Your task to perform on an android device: Open the calendar app, open the side menu, and click the "Day" option Image 0: 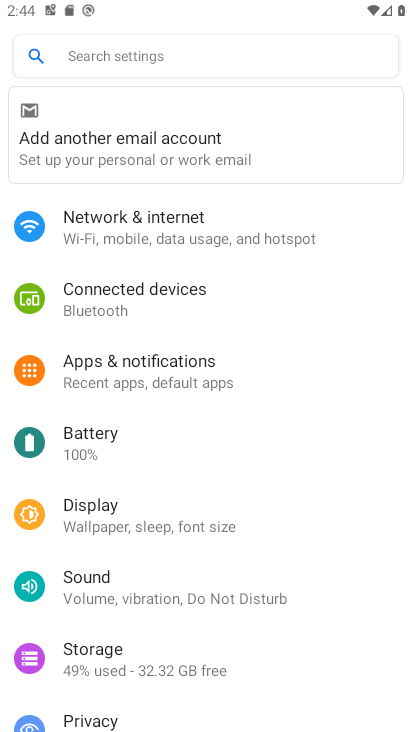
Step 0: press home button
Your task to perform on an android device: Open the calendar app, open the side menu, and click the "Day" option Image 1: 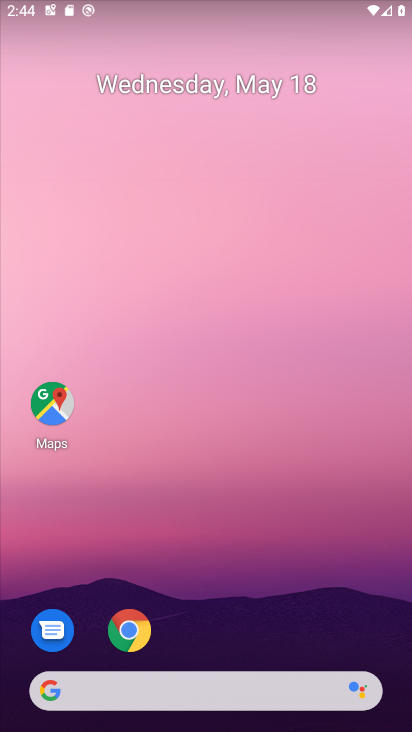
Step 1: drag from (207, 614) to (264, 156)
Your task to perform on an android device: Open the calendar app, open the side menu, and click the "Day" option Image 2: 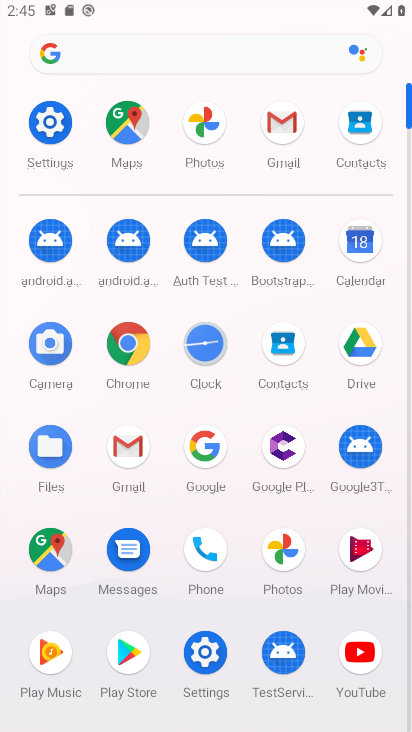
Step 2: click (360, 234)
Your task to perform on an android device: Open the calendar app, open the side menu, and click the "Day" option Image 3: 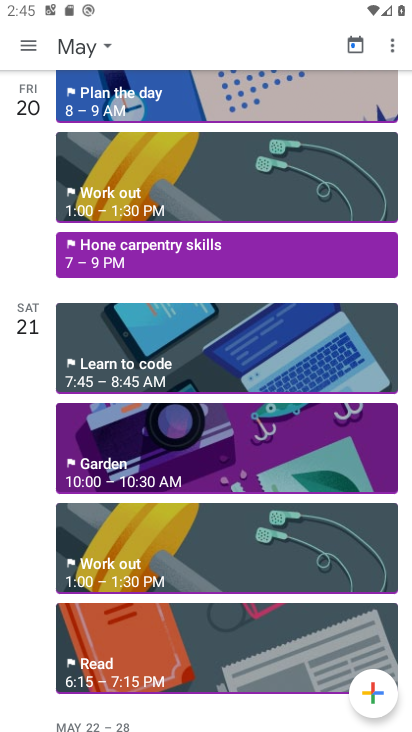
Step 3: click (27, 36)
Your task to perform on an android device: Open the calendar app, open the side menu, and click the "Day" option Image 4: 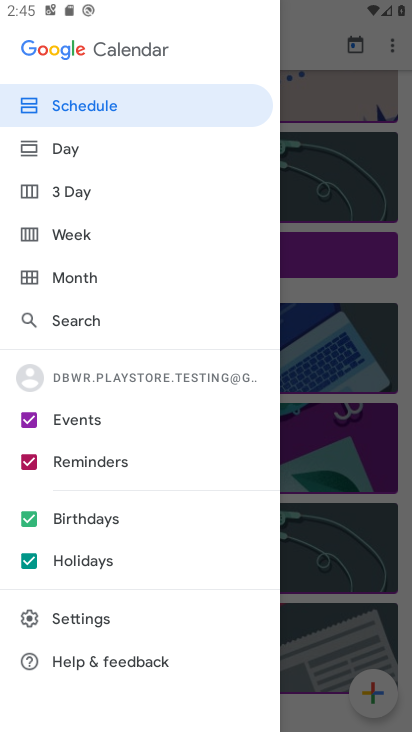
Step 4: click (67, 148)
Your task to perform on an android device: Open the calendar app, open the side menu, and click the "Day" option Image 5: 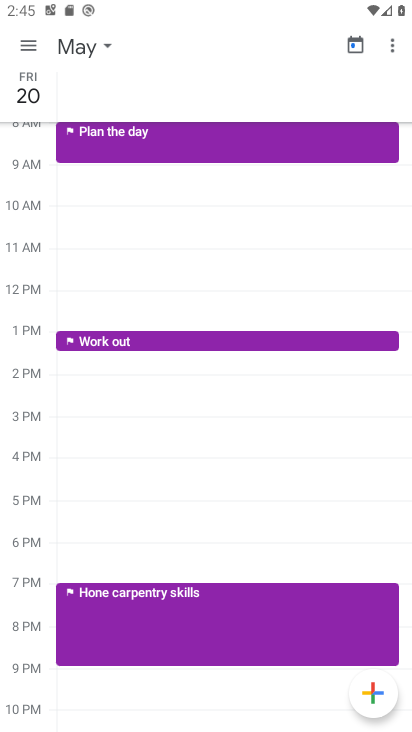
Step 5: task complete